Your task to perform on an android device: Open eBay Image 0: 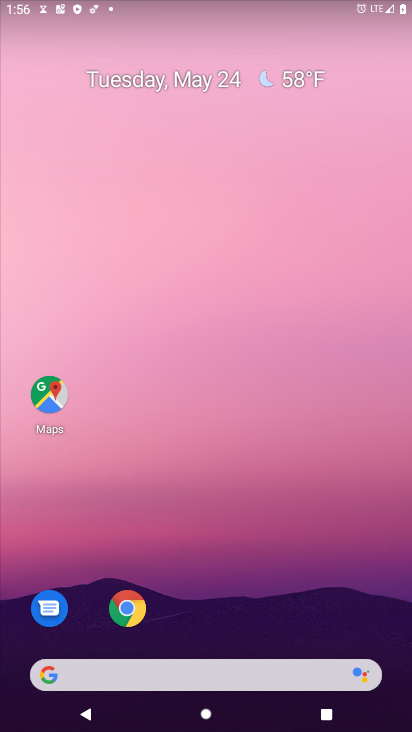
Step 0: drag from (281, 655) to (127, 99)
Your task to perform on an android device: Open eBay Image 1: 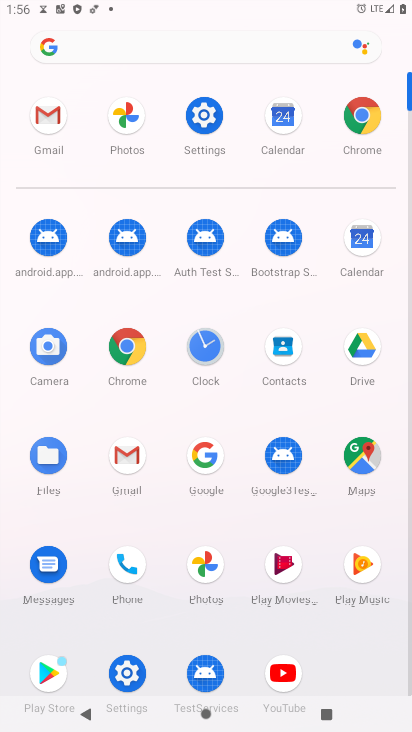
Step 1: click (373, 125)
Your task to perform on an android device: Open eBay Image 2: 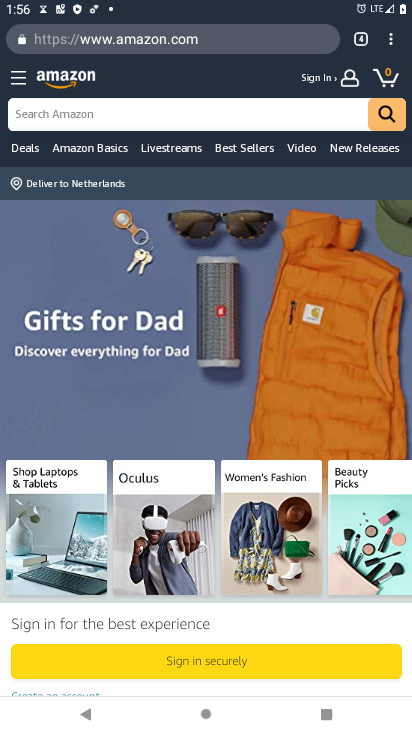
Step 2: click (260, 44)
Your task to perform on an android device: Open eBay Image 3: 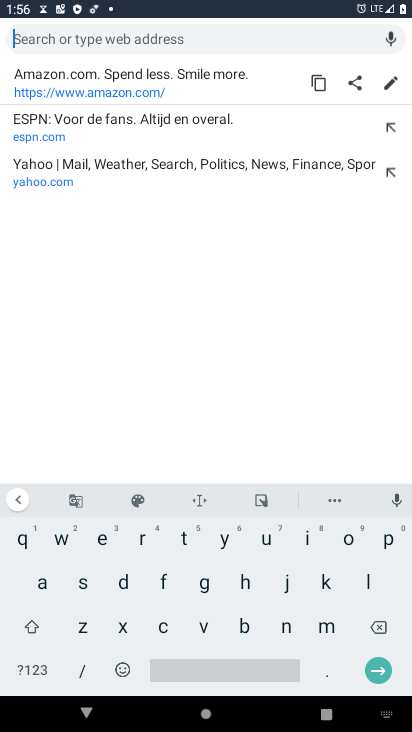
Step 3: click (104, 538)
Your task to perform on an android device: Open eBay Image 4: 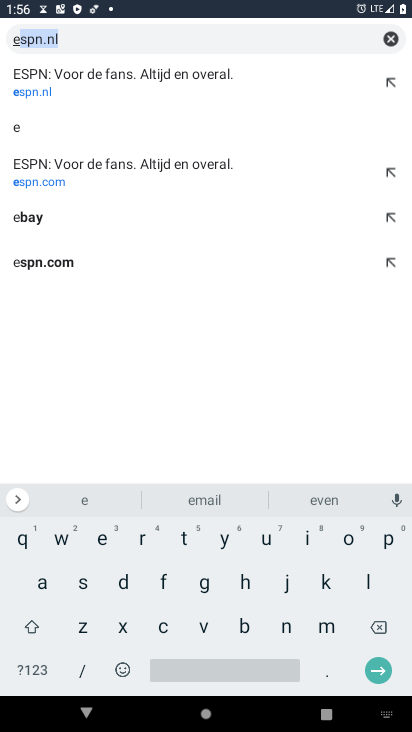
Step 4: click (58, 219)
Your task to perform on an android device: Open eBay Image 5: 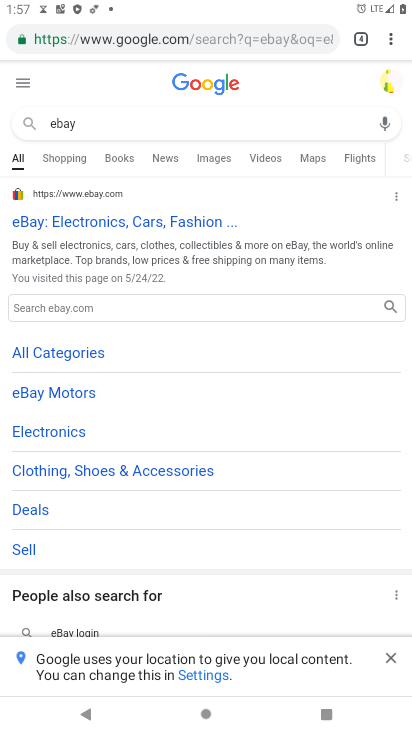
Step 5: click (64, 221)
Your task to perform on an android device: Open eBay Image 6: 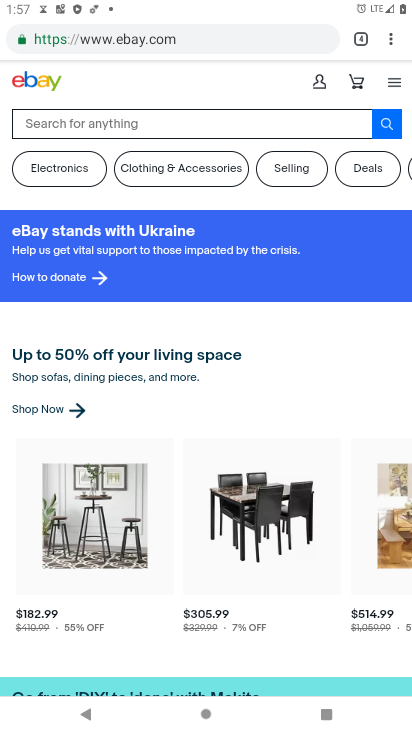
Step 6: task complete